Your task to perform on an android device: turn on translation in the chrome app Image 0: 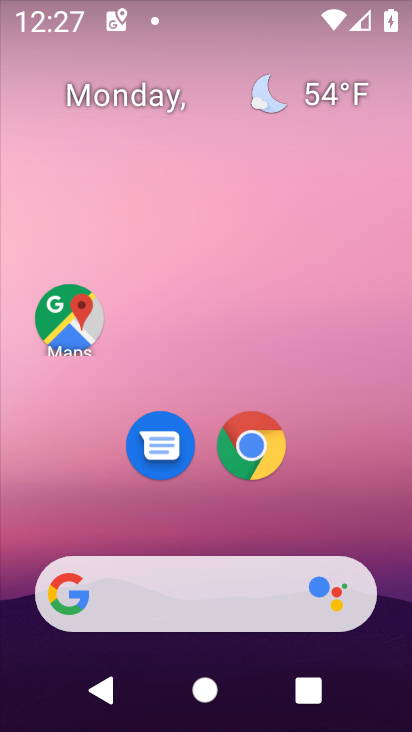
Step 0: drag from (395, 519) to (378, 94)
Your task to perform on an android device: turn on translation in the chrome app Image 1: 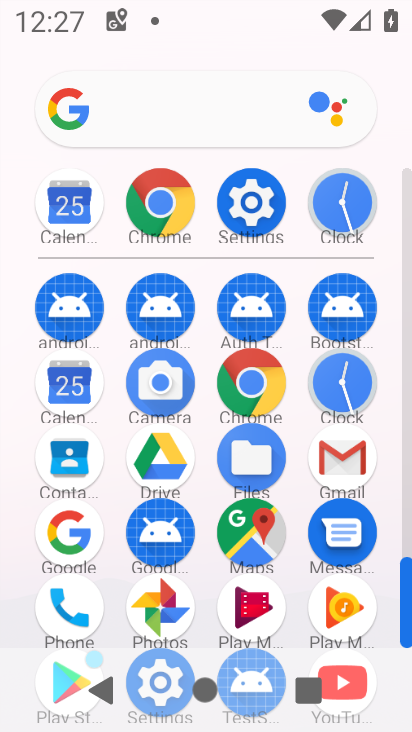
Step 1: click (255, 390)
Your task to perform on an android device: turn on translation in the chrome app Image 2: 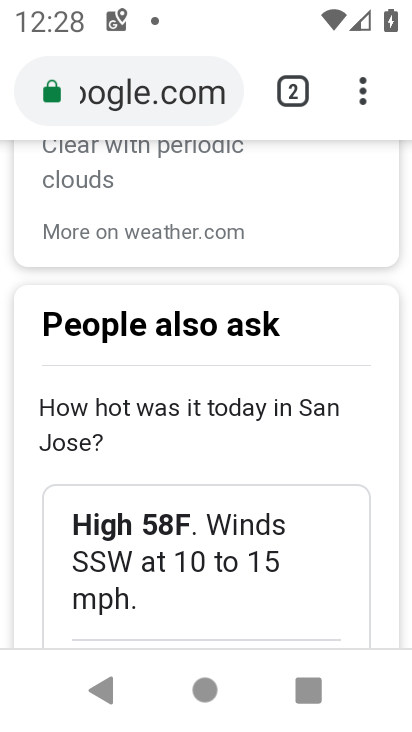
Step 2: drag from (359, 104) to (188, 479)
Your task to perform on an android device: turn on translation in the chrome app Image 3: 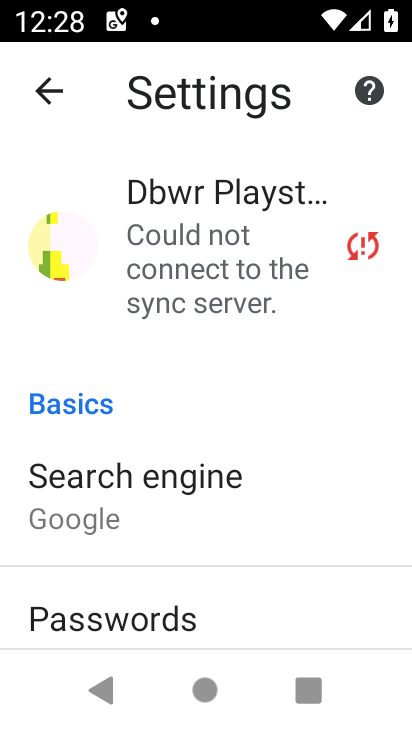
Step 3: drag from (244, 575) to (252, 301)
Your task to perform on an android device: turn on translation in the chrome app Image 4: 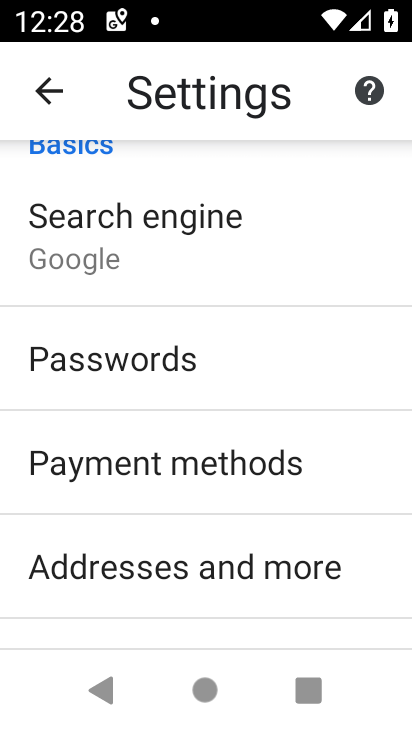
Step 4: drag from (279, 498) to (278, 290)
Your task to perform on an android device: turn on translation in the chrome app Image 5: 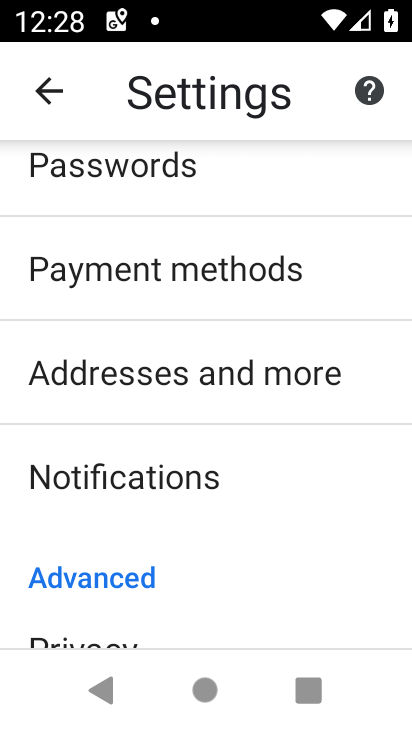
Step 5: drag from (287, 510) to (317, 225)
Your task to perform on an android device: turn on translation in the chrome app Image 6: 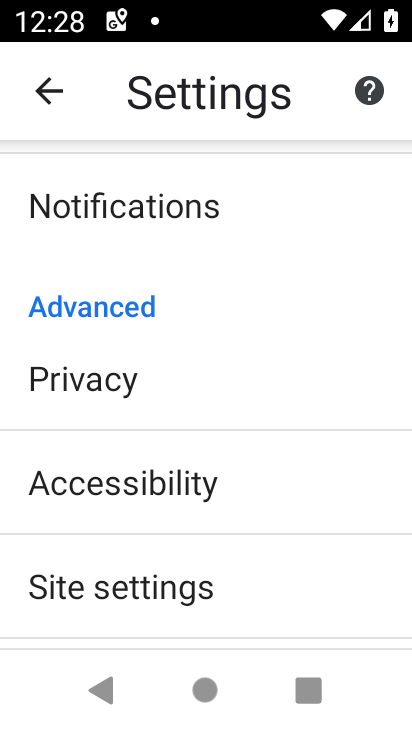
Step 6: drag from (288, 599) to (267, 326)
Your task to perform on an android device: turn on translation in the chrome app Image 7: 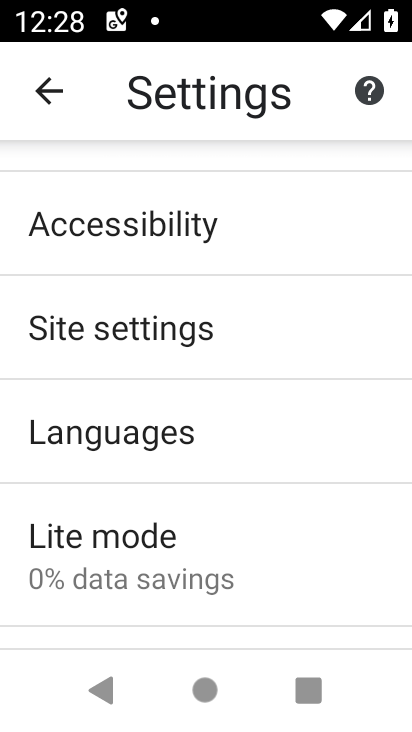
Step 7: drag from (251, 531) to (253, 277)
Your task to perform on an android device: turn on translation in the chrome app Image 8: 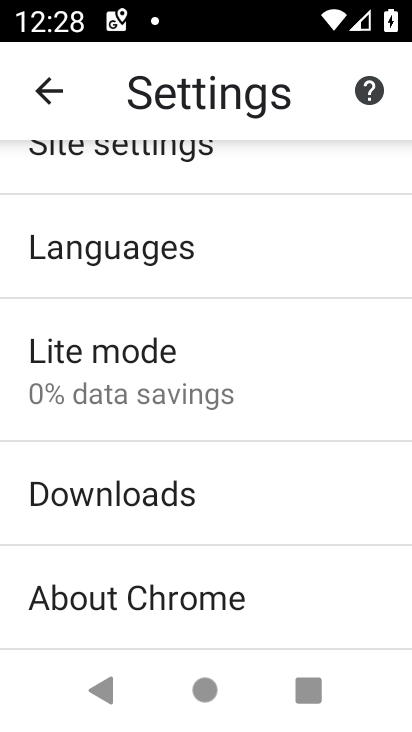
Step 8: drag from (288, 528) to (323, 301)
Your task to perform on an android device: turn on translation in the chrome app Image 9: 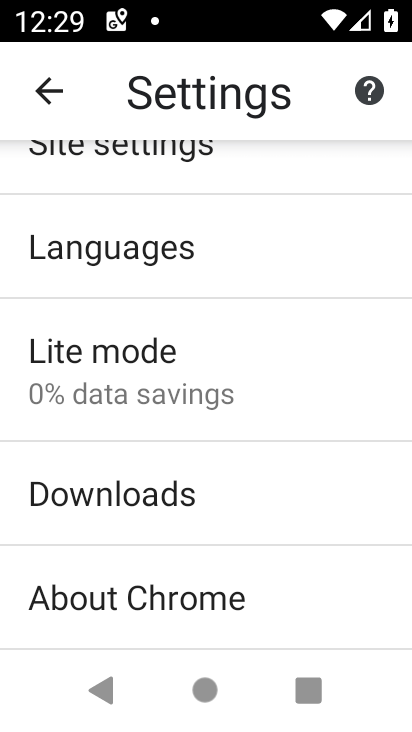
Step 9: drag from (287, 221) to (262, 534)
Your task to perform on an android device: turn on translation in the chrome app Image 10: 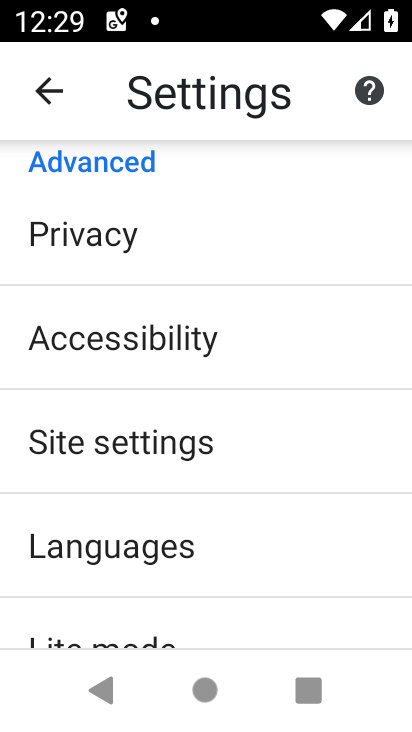
Step 10: click (199, 569)
Your task to perform on an android device: turn on translation in the chrome app Image 11: 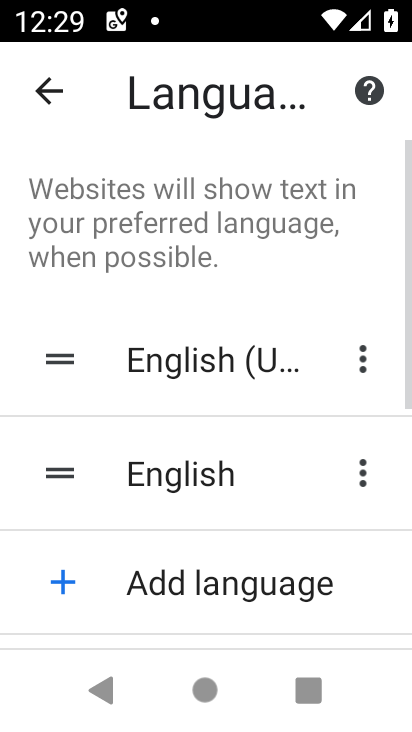
Step 11: drag from (312, 494) to (287, 230)
Your task to perform on an android device: turn on translation in the chrome app Image 12: 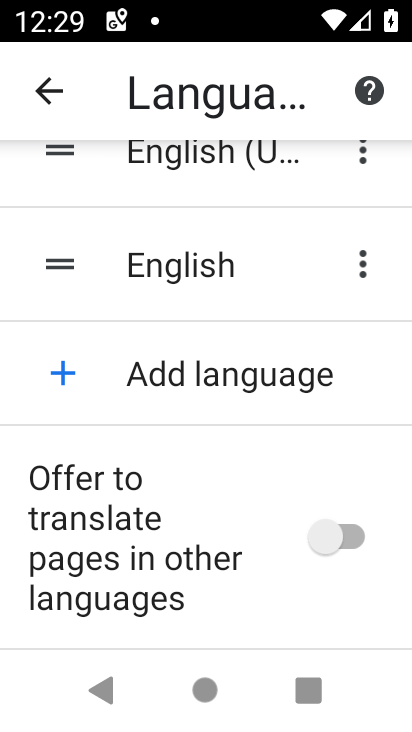
Step 12: click (347, 542)
Your task to perform on an android device: turn on translation in the chrome app Image 13: 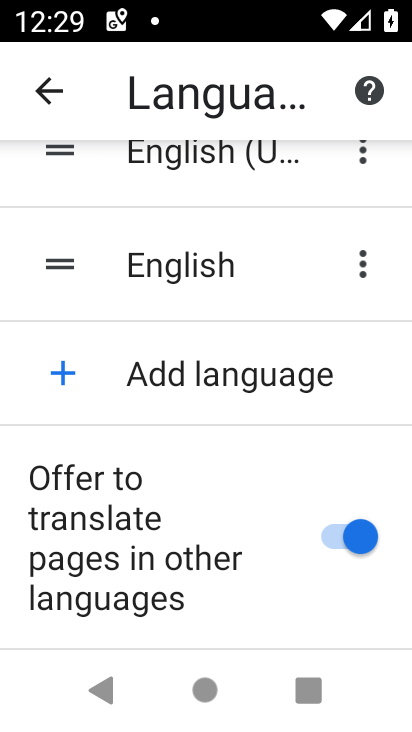
Step 13: task complete